Your task to perform on an android device: Search for Mexican restaurants on Maps Image 0: 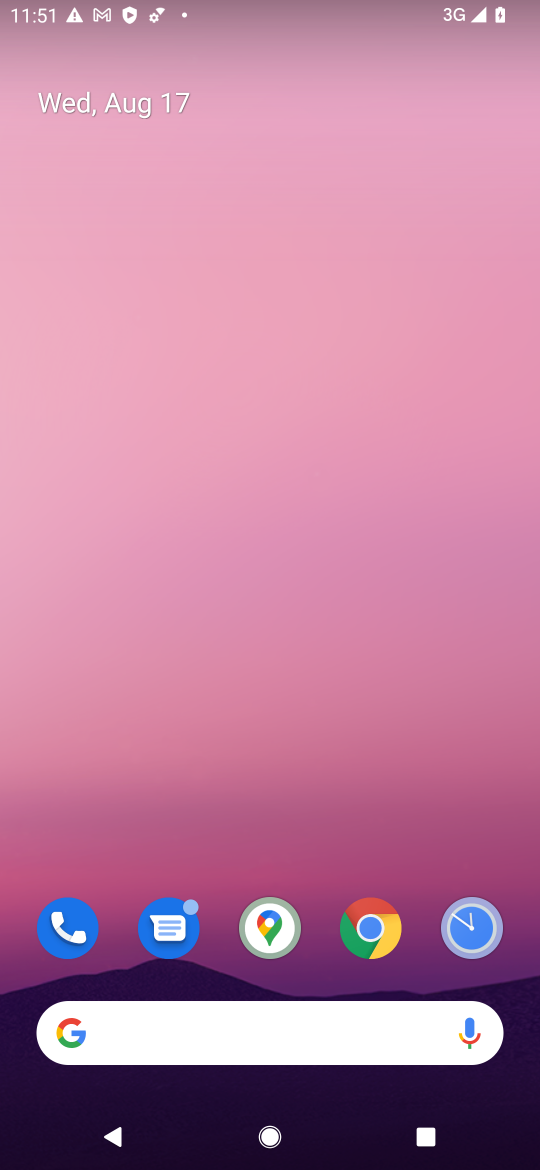
Step 0: click (278, 927)
Your task to perform on an android device: Search for Mexican restaurants on Maps Image 1: 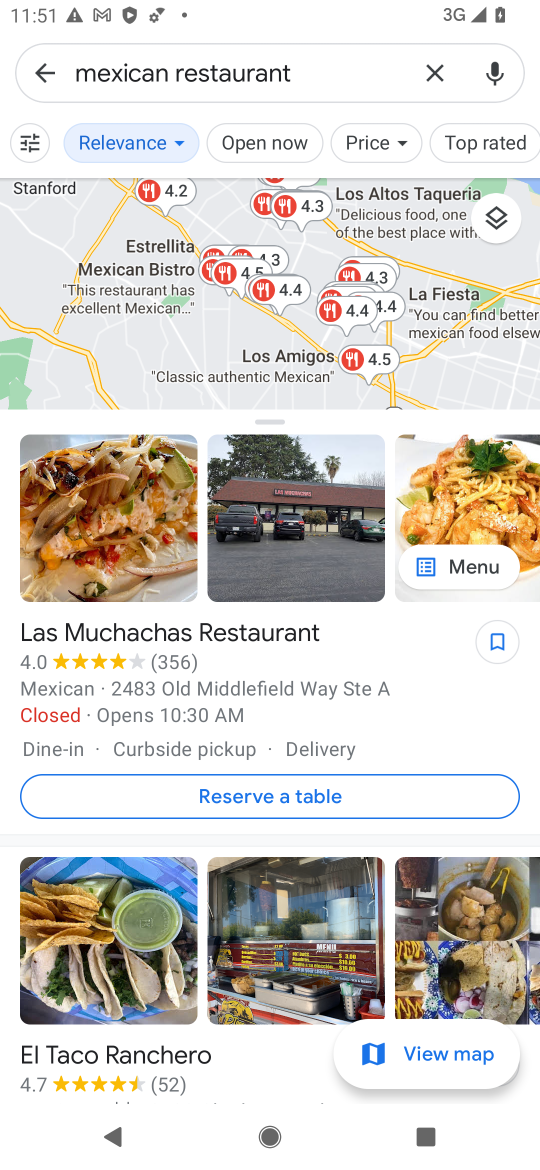
Step 1: task complete